Your task to perform on an android device: Check the news Image 0: 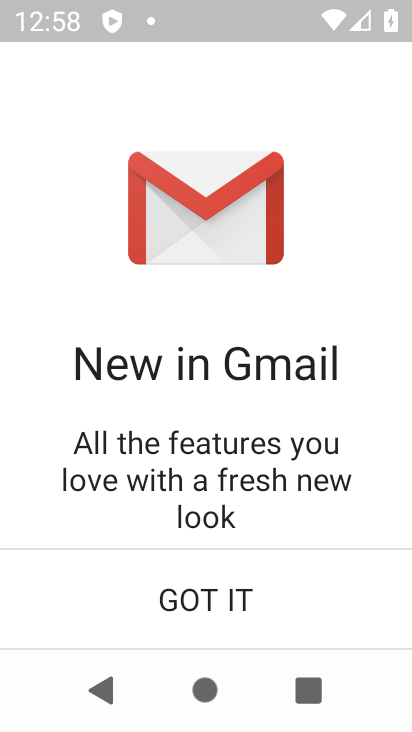
Step 0: press home button
Your task to perform on an android device: Check the news Image 1: 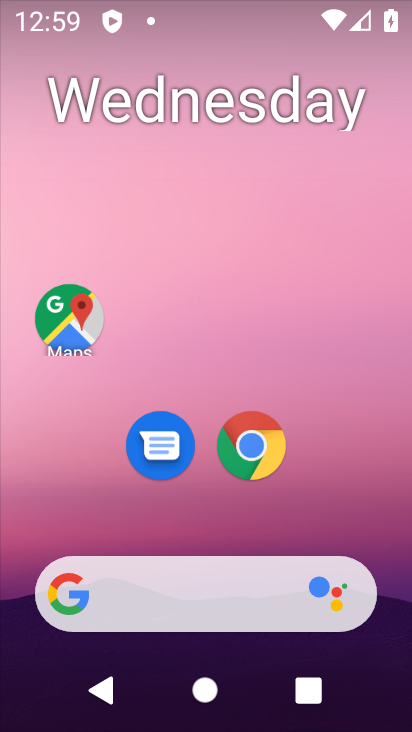
Step 1: task complete